Your task to perform on an android device: open sync settings in chrome Image 0: 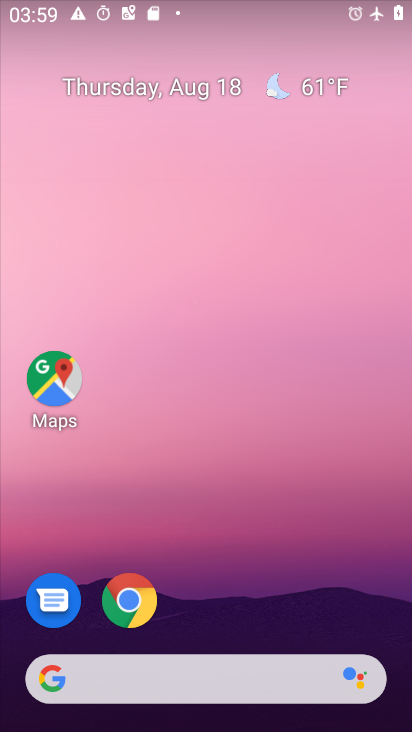
Step 0: press home button
Your task to perform on an android device: open sync settings in chrome Image 1: 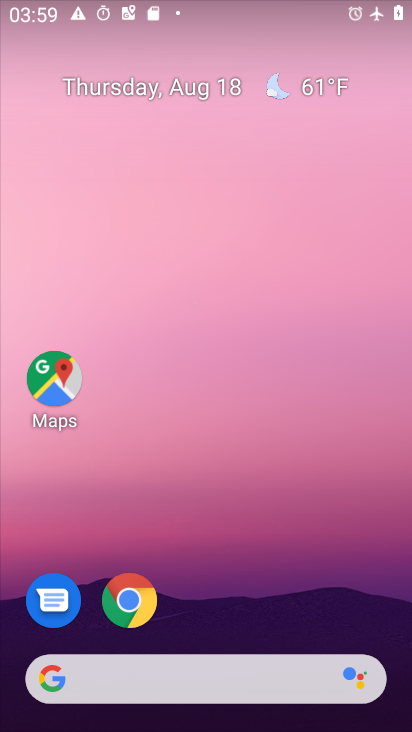
Step 1: click (127, 598)
Your task to perform on an android device: open sync settings in chrome Image 2: 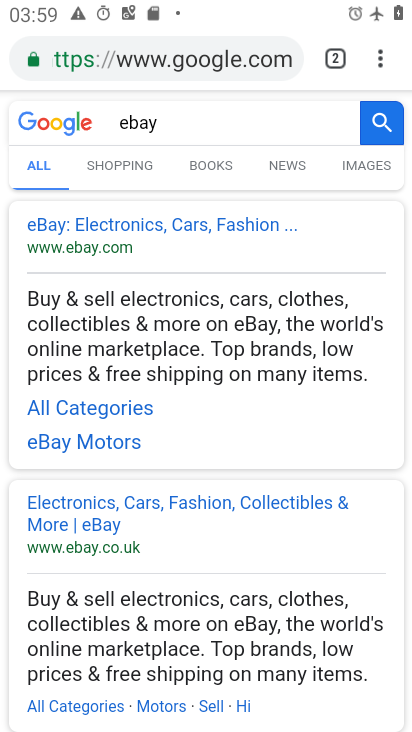
Step 2: drag from (377, 56) to (171, 662)
Your task to perform on an android device: open sync settings in chrome Image 3: 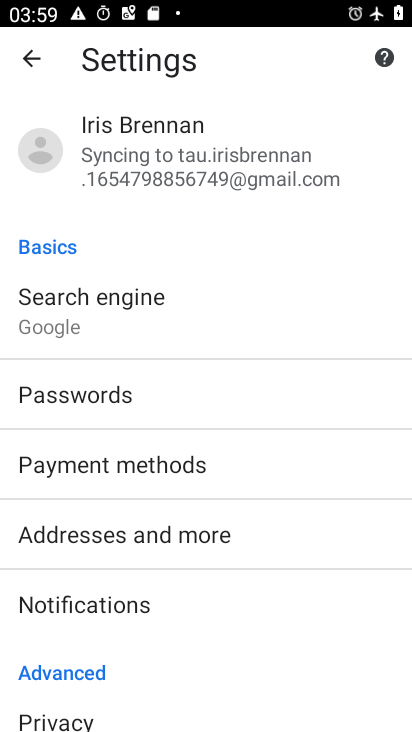
Step 3: click (184, 156)
Your task to perform on an android device: open sync settings in chrome Image 4: 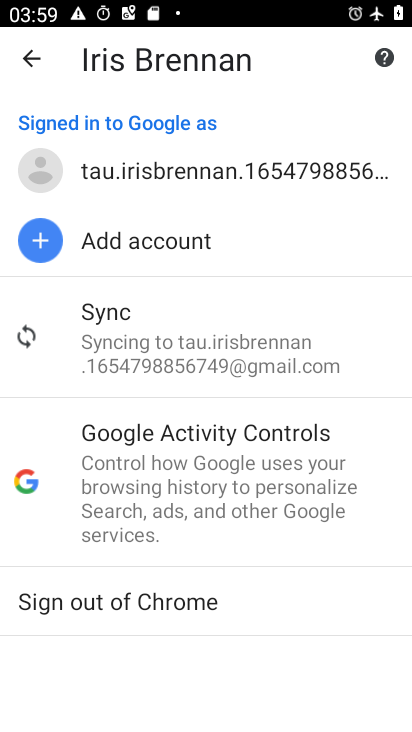
Step 4: click (178, 366)
Your task to perform on an android device: open sync settings in chrome Image 5: 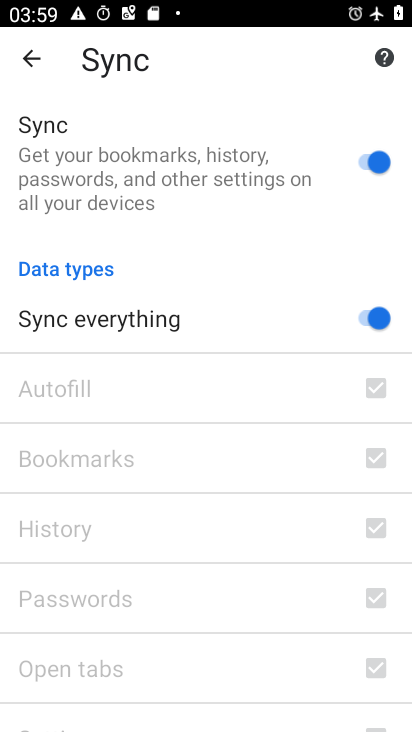
Step 5: task complete